Your task to perform on an android device: Open privacy settings Image 0: 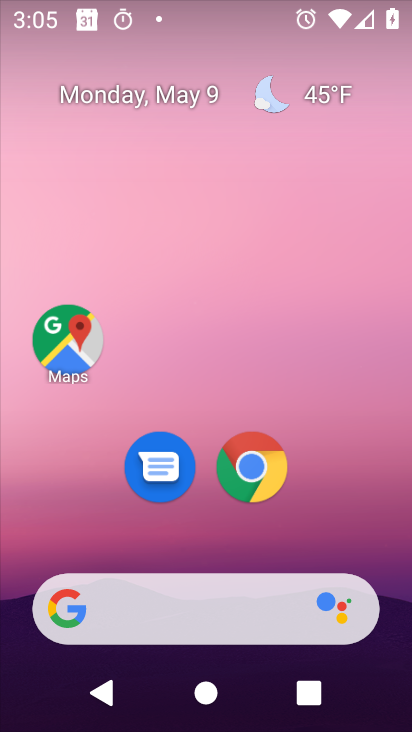
Step 0: drag from (359, 516) to (301, 123)
Your task to perform on an android device: Open privacy settings Image 1: 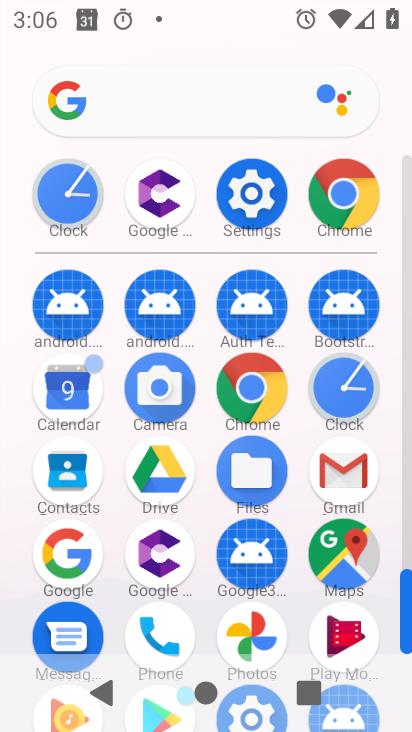
Step 1: click (271, 199)
Your task to perform on an android device: Open privacy settings Image 2: 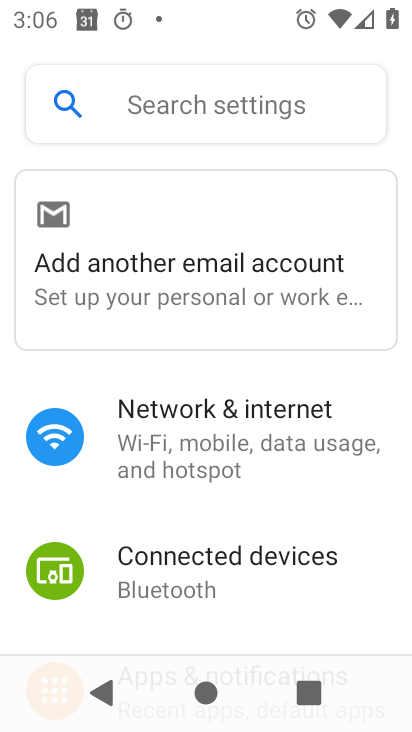
Step 2: drag from (280, 581) to (233, 158)
Your task to perform on an android device: Open privacy settings Image 3: 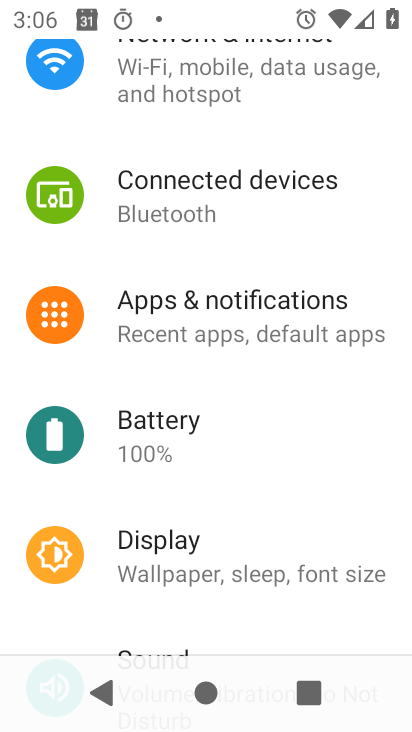
Step 3: drag from (276, 562) to (250, 169)
Your task to perform on an android device: Open privacy settings Image 4: 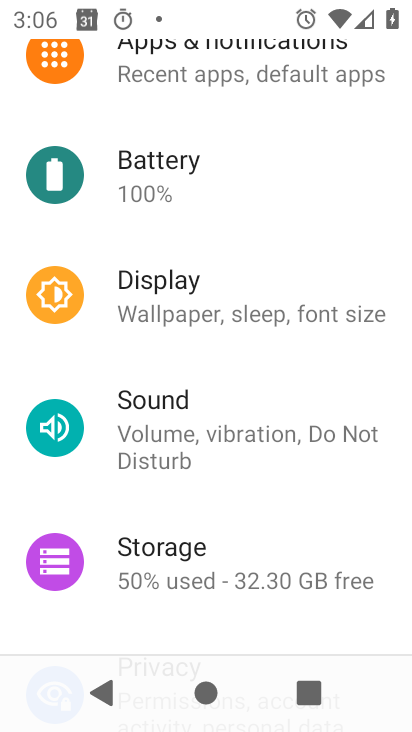
Step 4: drag from (203, 499) to (156, 159)
Your task to perform on an android device: Open privacy settings Image 5: 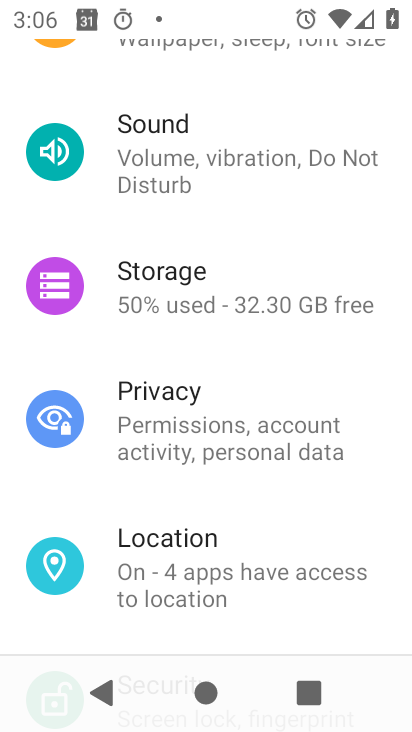
Step 5: drag from (192, 435) to (184, 152)
Your task to perform on an android device: Open privacy settings Image 6: 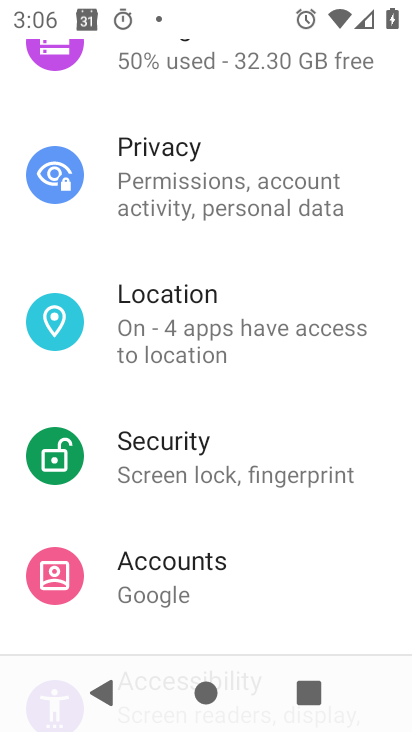
Step 6: drag from (219, 439) to (254, 135)
Your task to perform on an android device: Open privacy settings Image 7: 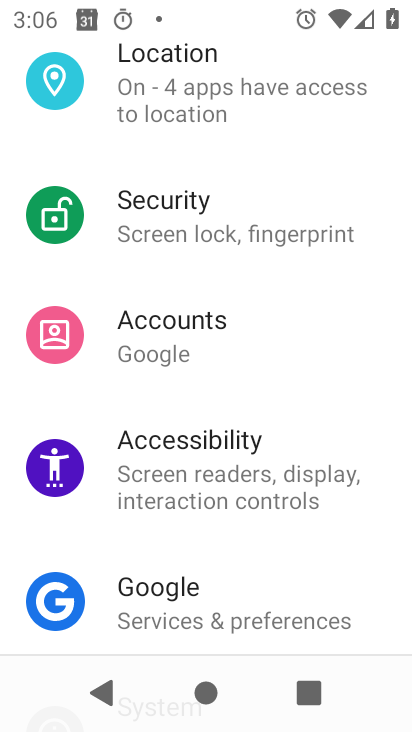
Step 7: drag from (239, 403) to (220, 94)
Your task to perform on an android device: Open privacy settings Image 8: 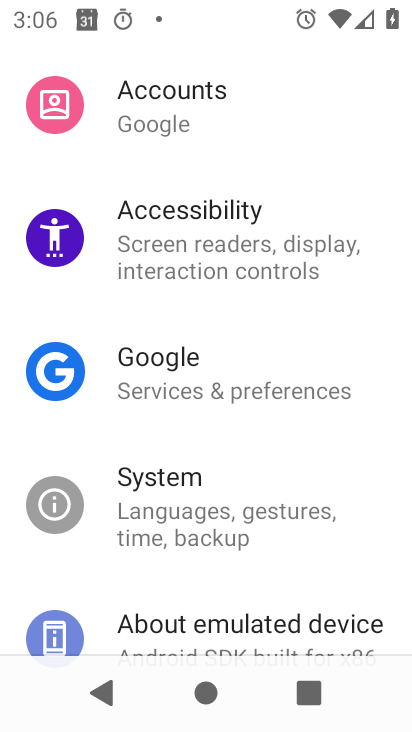
Step 8: drag from (175, 528) to (280, 168)
Your task to perform on an android device: Open privacy settings Image 9: 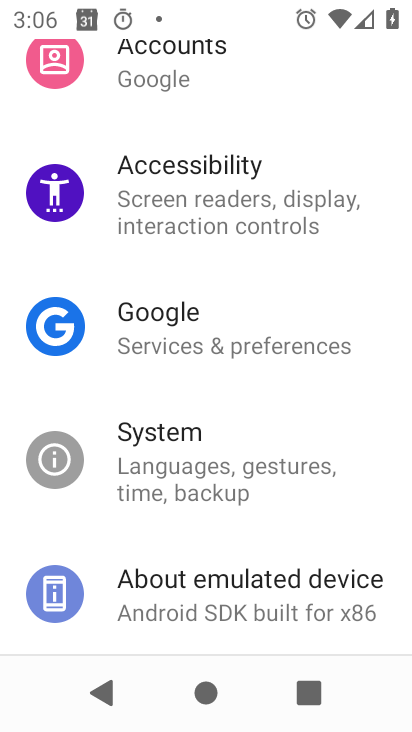
Step 9: drag from (252, 494) to (271, 86)
Your task to perform on an android device: Open privacy settings Image 10: 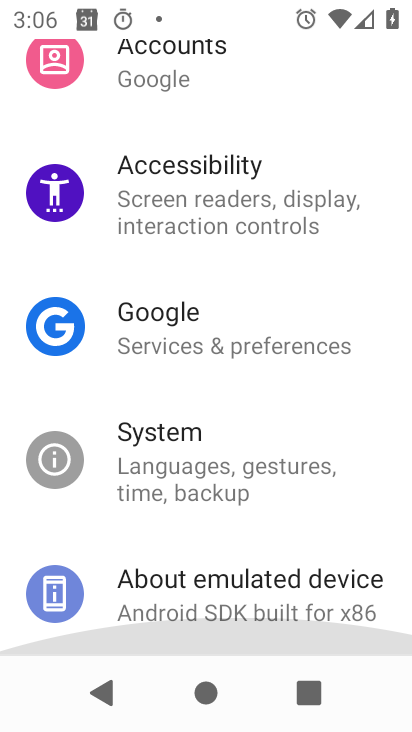
Step 10: drag from (268, 91) to (248, 465)
Your task to perform on an android device: Open privacy settings Image 11: 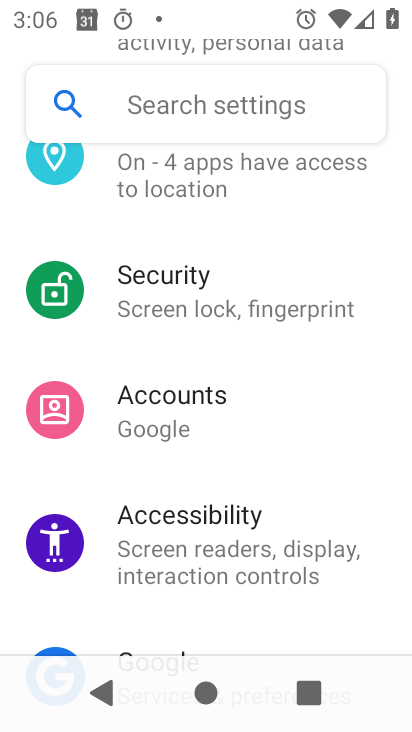
Step 11: drag from (251, 392) to (278, 567)
Your task to perform on an android device: Open privacy settings Image 12: 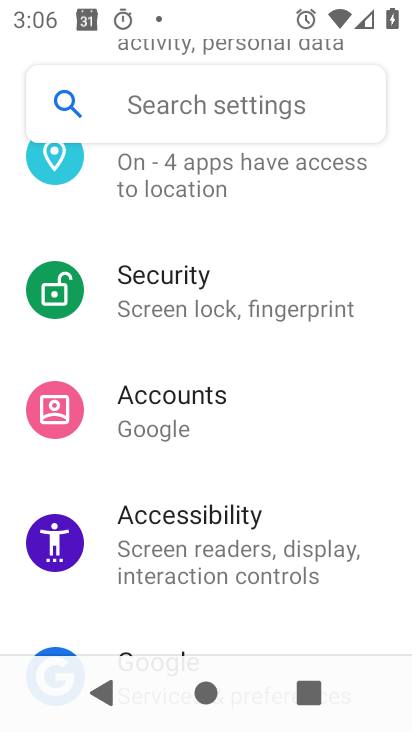
Step 12: drag from (273, 273) to (294, 532)
Your task to perform on an android device: Open privacy settings Image 13: 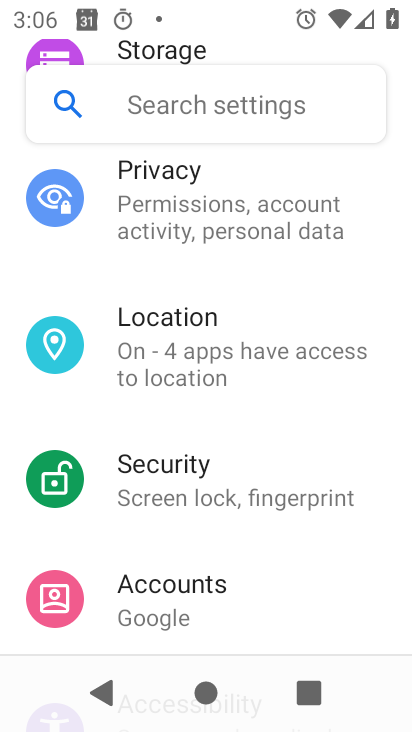
Step 13: drag from (279, 281) to (274, 472)
Your task to perform on an android device: Open privacy settings Image 14: 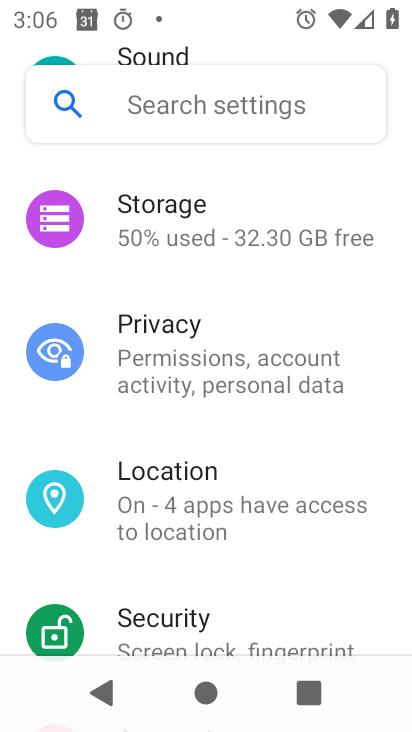
Step 14: click (220, 385)
Your task to perform on an android device: Open privacy settings Image 15: 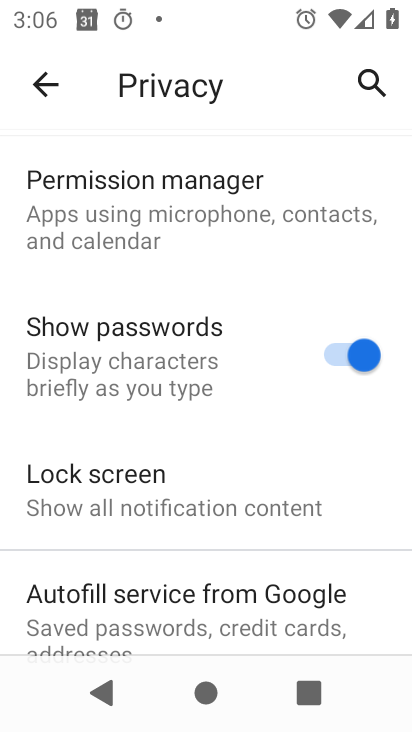
Step 15: task complete